Your task to perform on an android device: Go to battery settings Image 0: 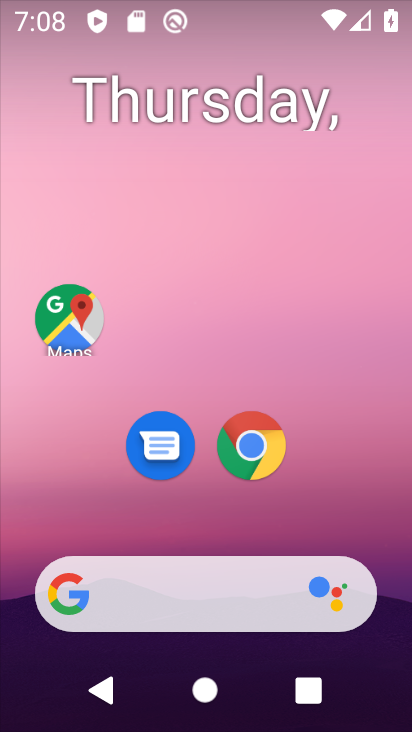
Step 0: click (61, 317)
Your task to perform on an android device: Go to battery settings Image 1: 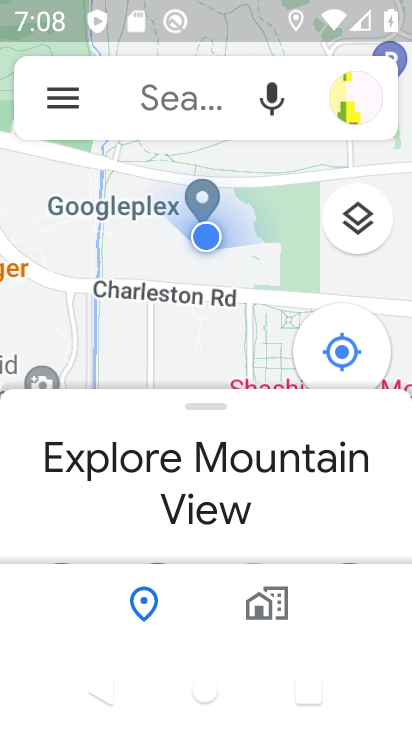
Step 1: press home button
Your task to perform on an android device: Go to battery settings Image 2: 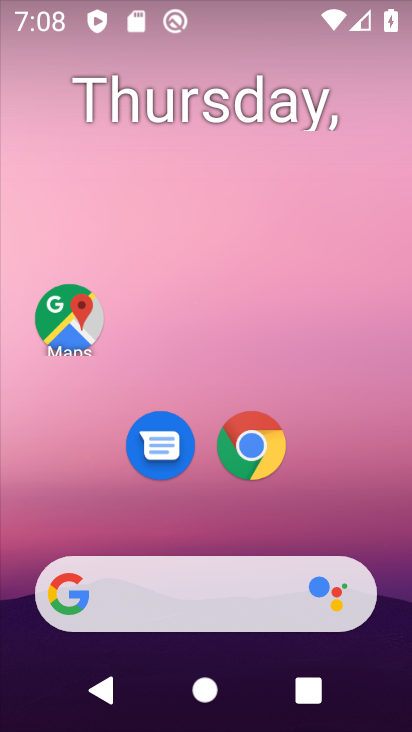
Step 2: drag from (332, 542) to (277, 141)
Your task to perform on an android device: Go to battery settings Image 3: 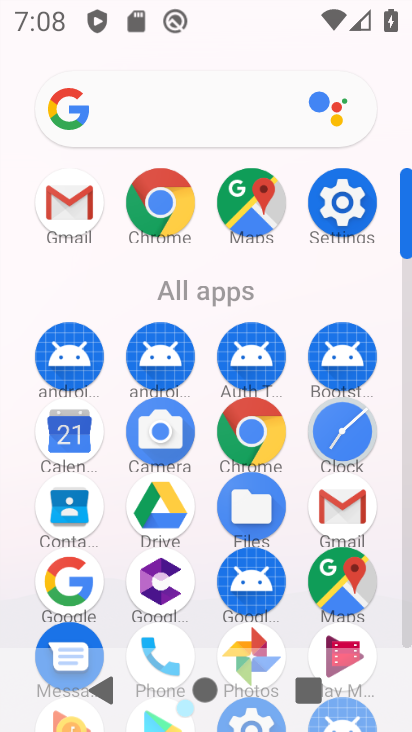
Step 3: click (343, 213)
Your task to perform on an android device: Go to battery settings Image 4: 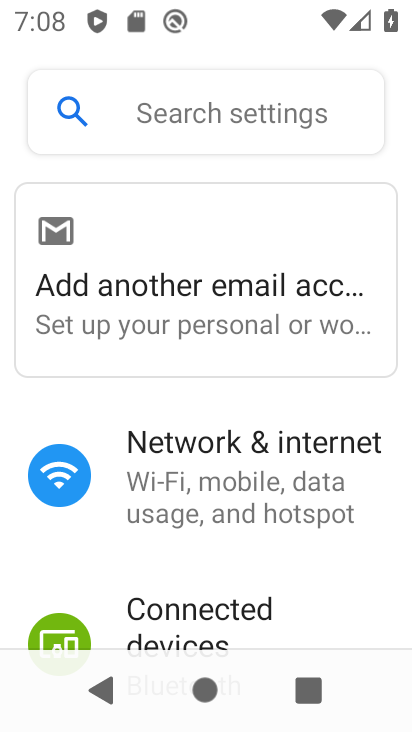
Step 4: drag from (213, 511) to (260, 174)
Your task to perform on an android device: Go to battery settings Image 5: 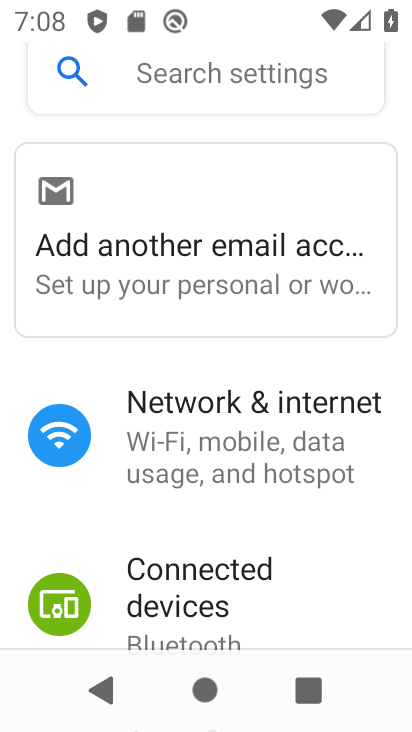
Step 5: drag from (267, 517) to (247, 196)
Your task to perform on an android device: Go to battery settings Image 6: 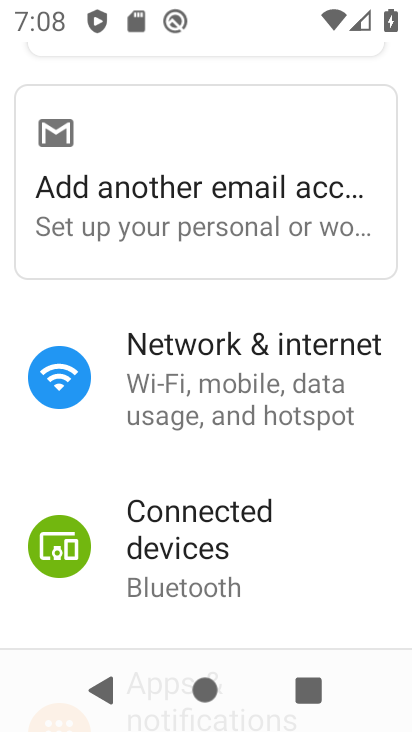
Step 6: drag from (239, 565) to (317, 226)
Your task to perform on an android device: Go to battery settings Image 7: 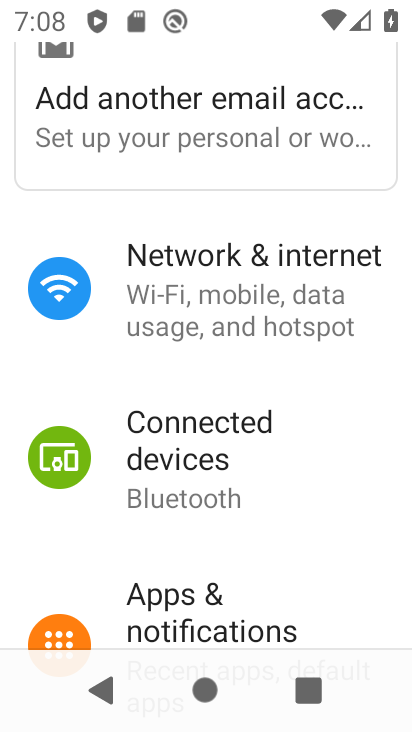
Step 7: drag from (250, 583) to (287, 238)
Your task to perform on an android device: Go to battery settings Image 8: 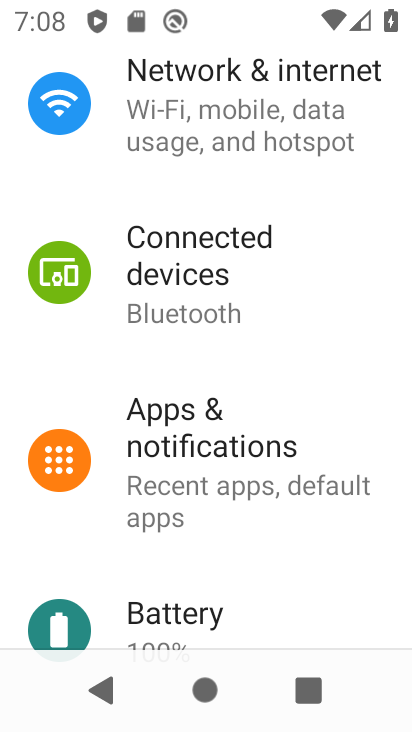
Step 8: click (198, 633)
Your task to perform on an android device: Go to battery settings Image 9: 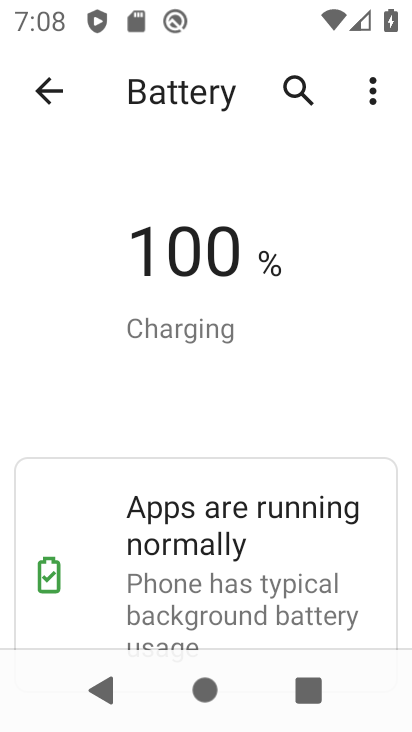
Step 9: task complete